Your task to perform on an android device: Search for sony triple a on target.com, select the first entry, and add it to the cart. Image 0: 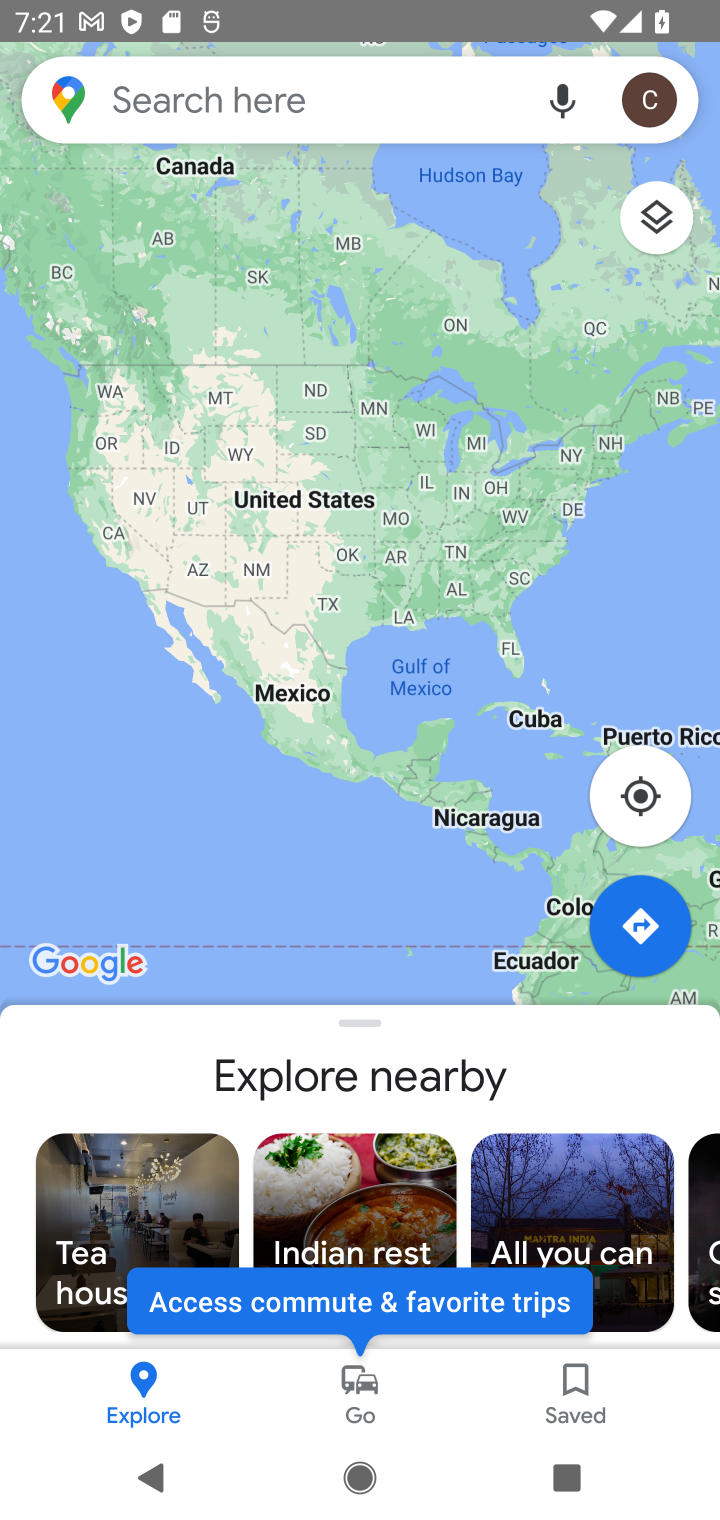
Step 0: press home button
Your task to perform on an android device: Search for sony triple a on target.com, select the first entry, and add it to the cart. Image 1: 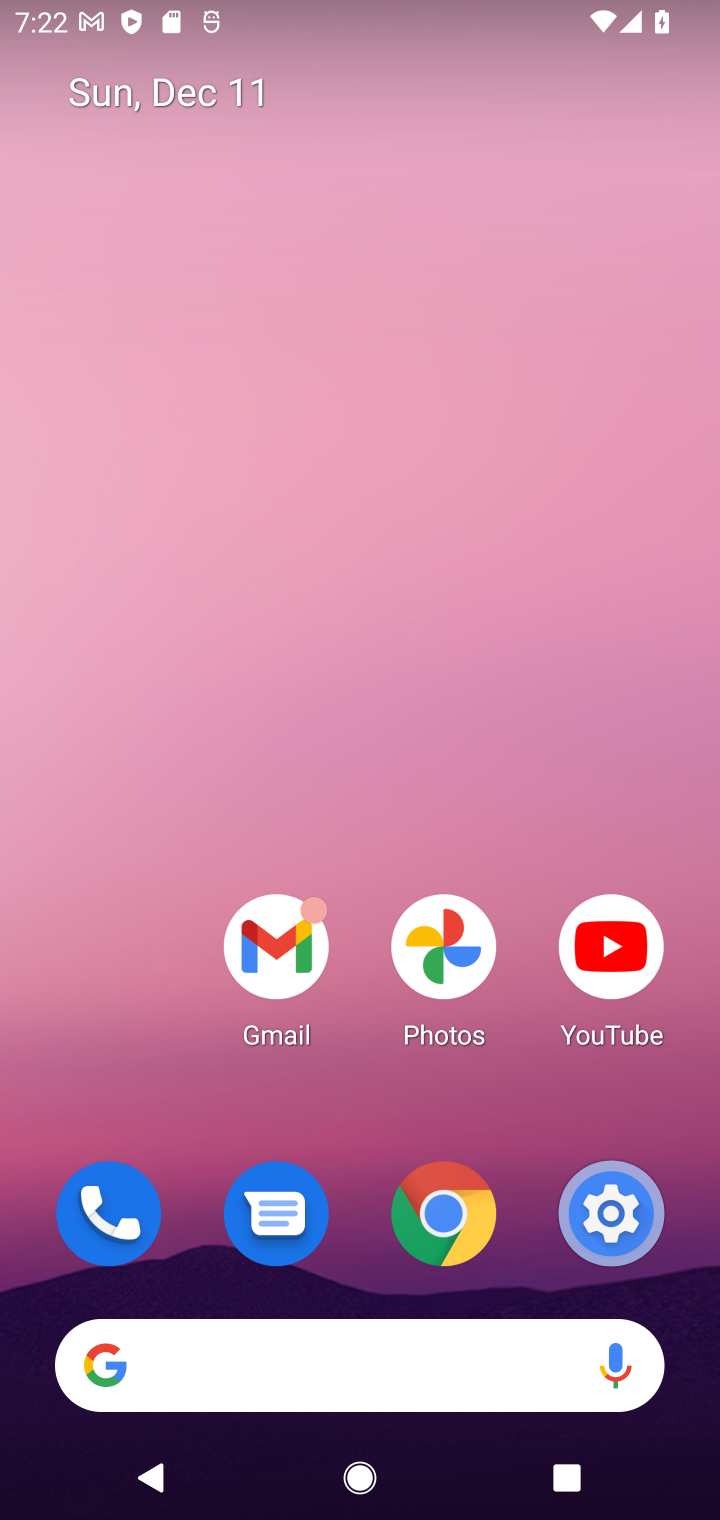
Step 1: click (357, 1386)
Your task to perform on an android device: Search for sony triple a on target.com, select the first entry, and add it to the cart. Image 2: 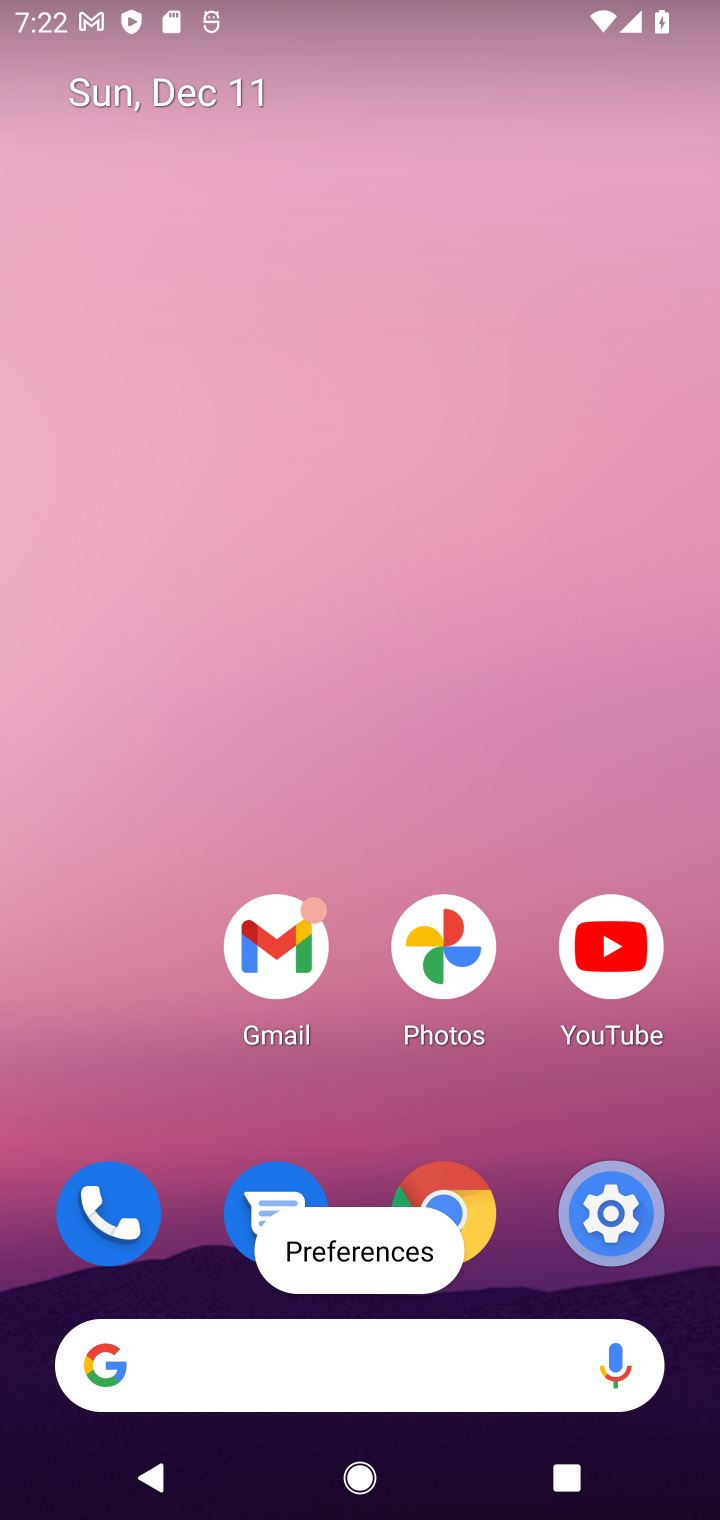
Step 2: type "target"
Your task to perform on an android device: Search for sony triple a on target.com, select the first entry, and add it to the cart. Image 3: 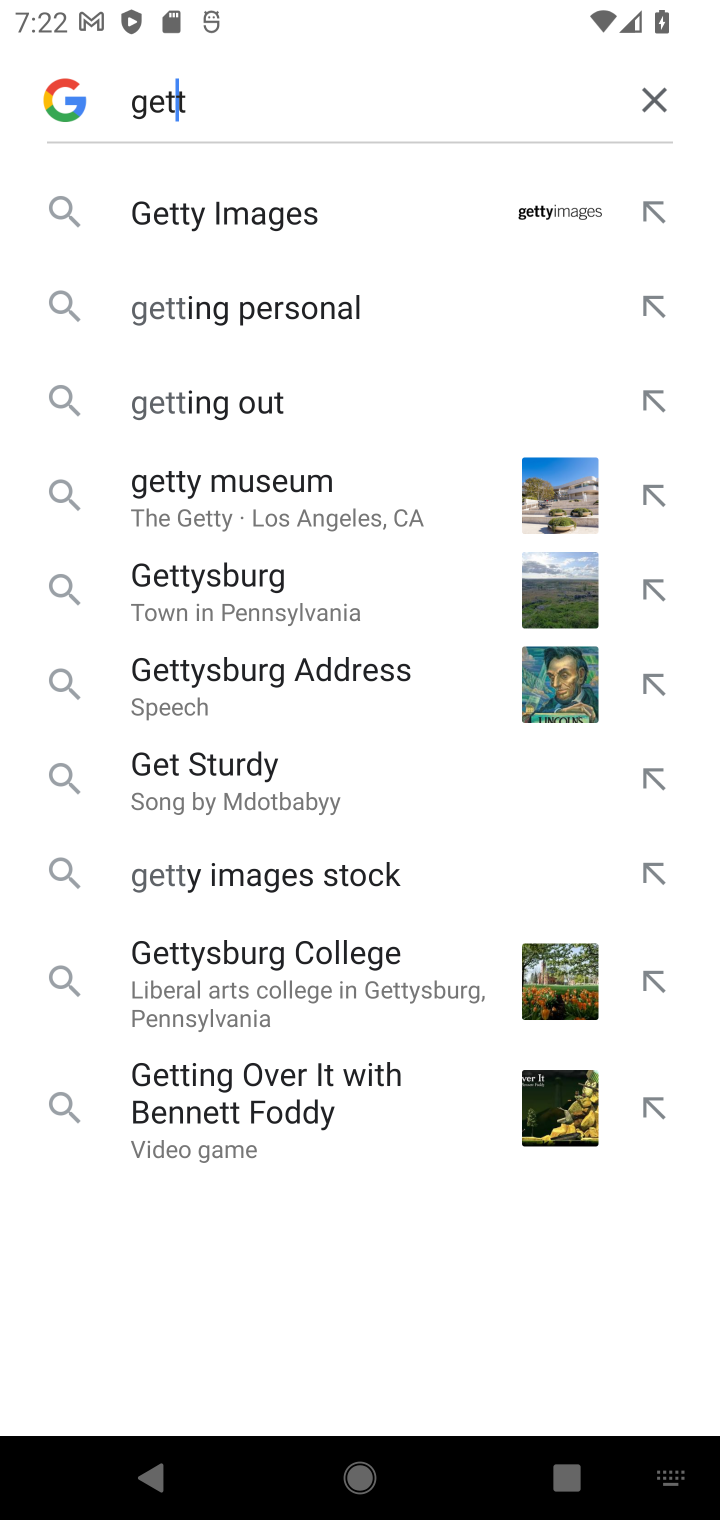
Step 3: click (629, 121)
Your task to perform on an android device: Search for sony triple a on target.com, select the first entry, and add it to the cart. Image 4: 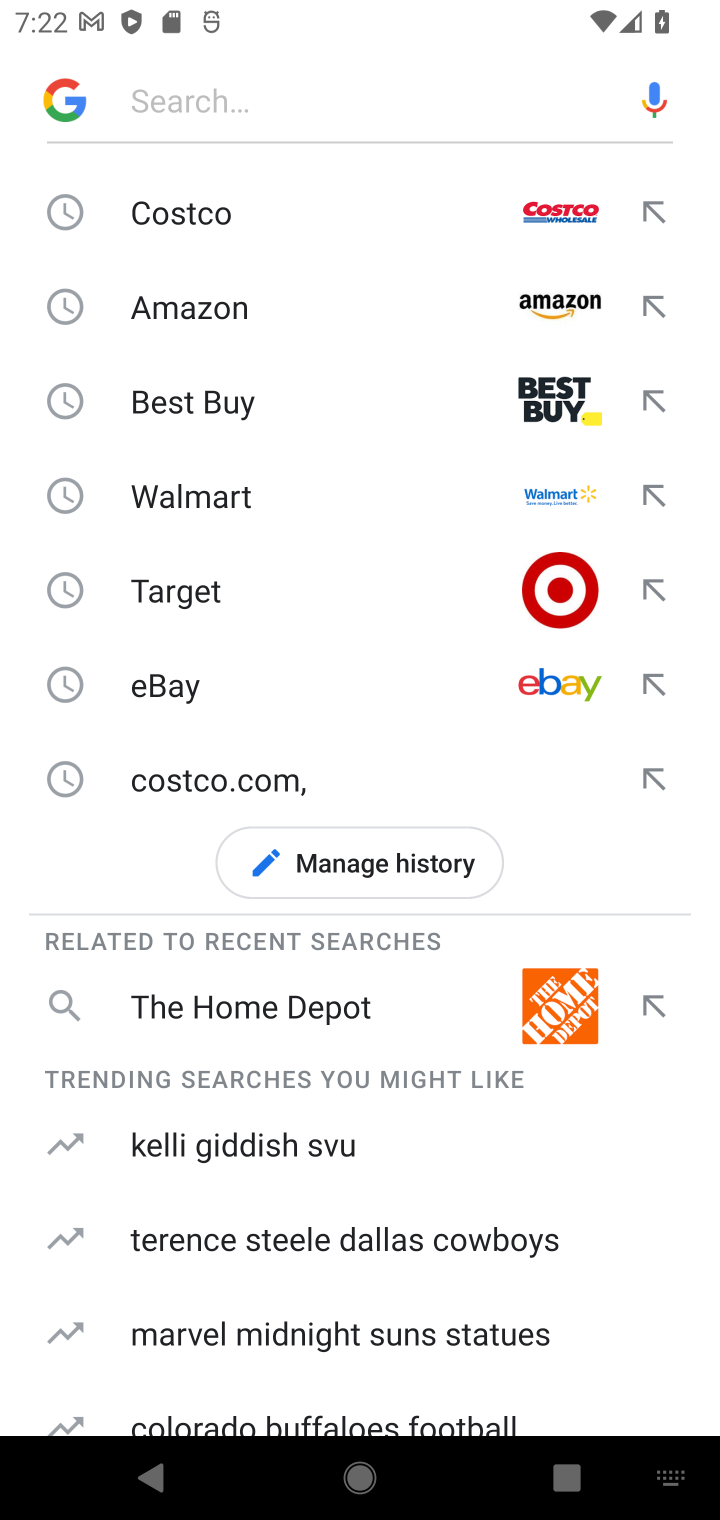
Step 4: type "target"
Your task to perform on an android device: Search for sony triple a on target.com, select the first entry, and add it to the cart. Image 5: 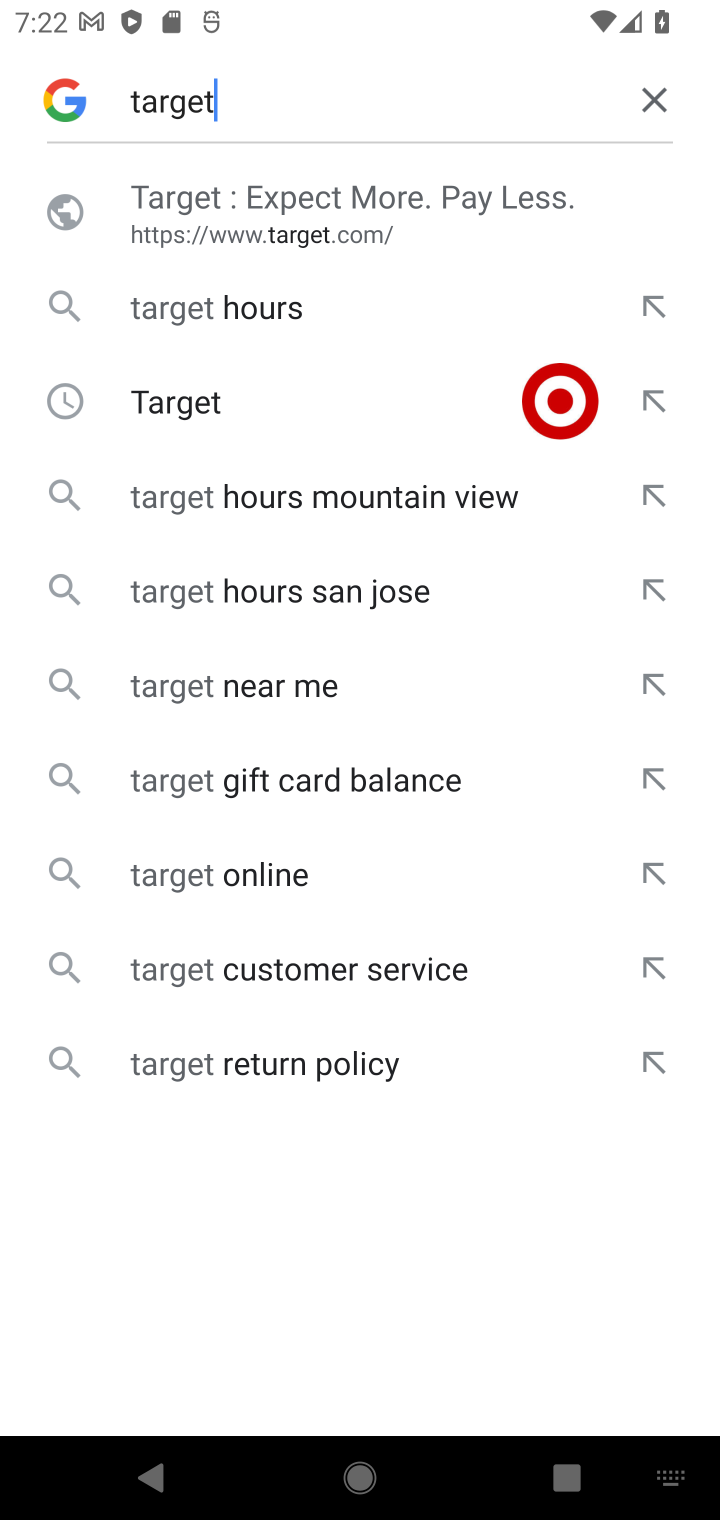
Step 5: click (206, 218)
Your task to perform on an android device: Search for sony triple a on target.com, select the first entry, and add it to the cart. Image 6: 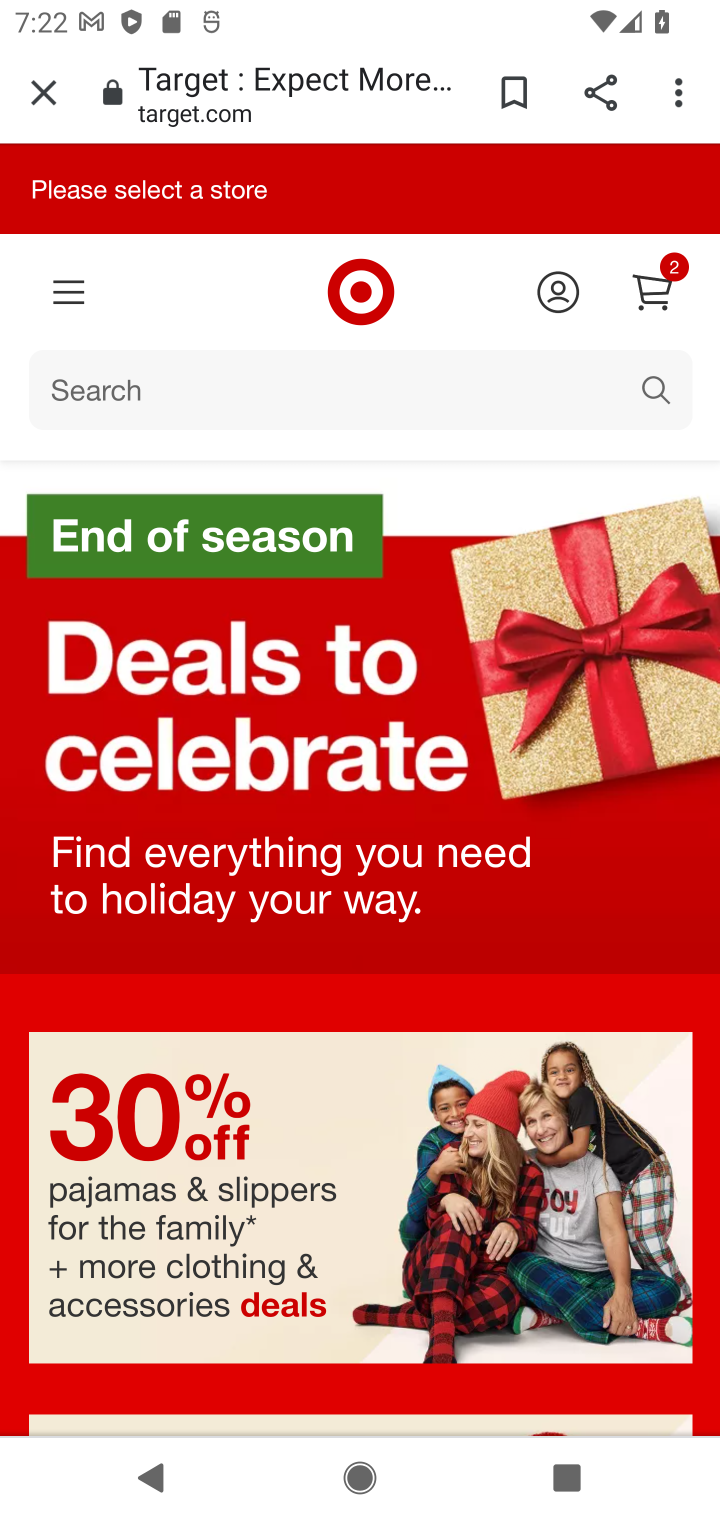
Step 6: click (318, 360)
Your task to perform on an android device: Search for sony triple a on target.com, select the first entry, and add it to the cart. Image 7: 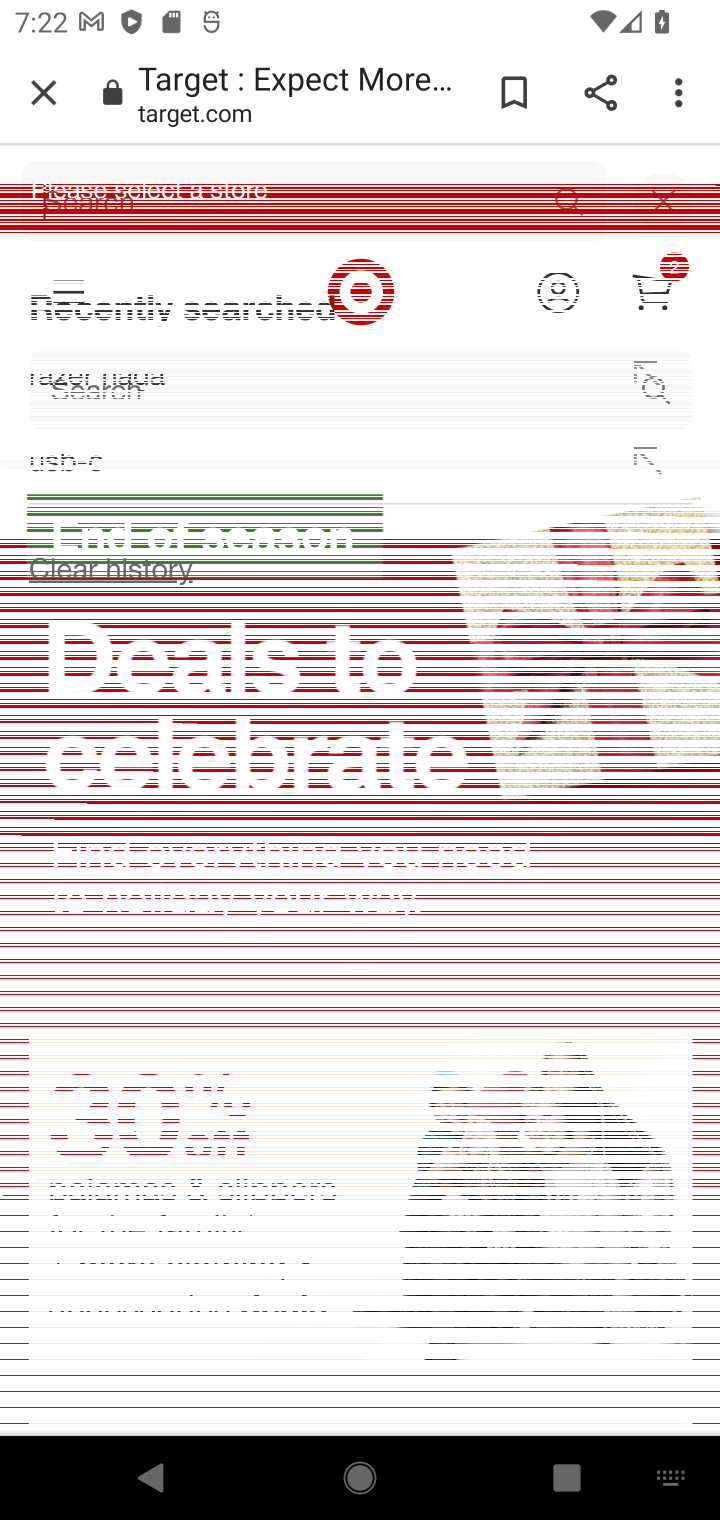
Step 7: type "sony tripl a"
Your task to perform on an android device: Search for sony triple a on target.com, select the first entry, and add it to the cart. Image 8: 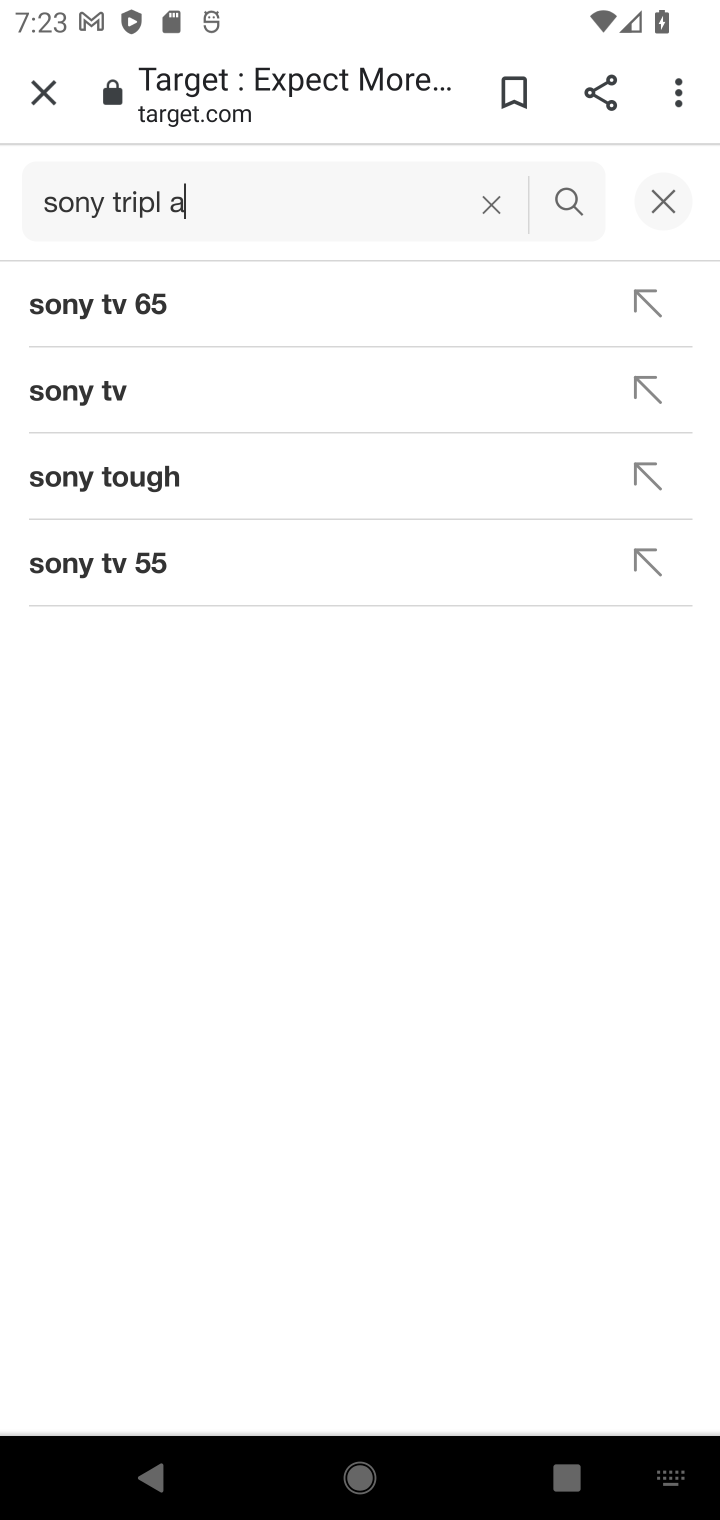
Step 8: press home button
Your task to perform on an android device: Search for sony triple a on target.com, select the first entry, and add it to the cart. Image 9: 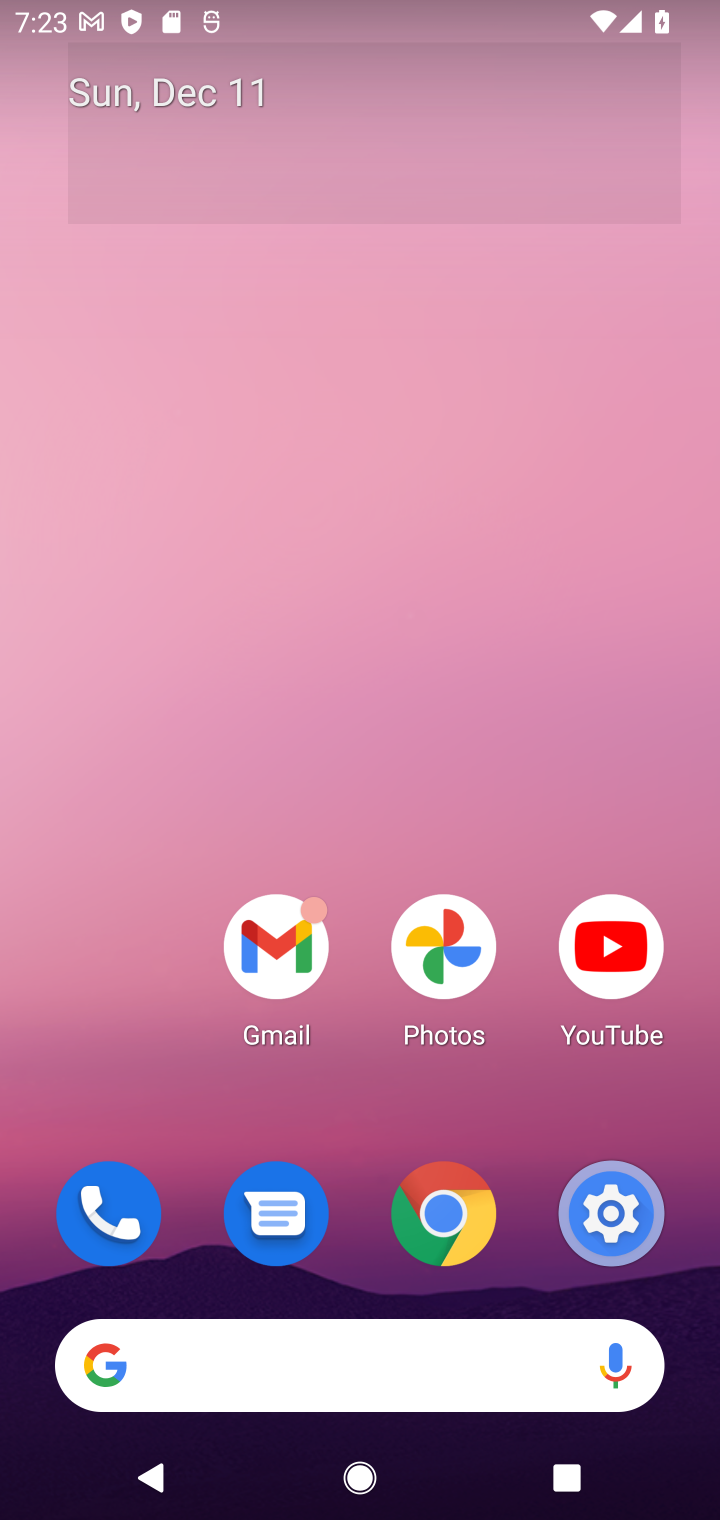
Step 9: click (324, 1348)
Your task to perform on an android device: Search for sony triple a on target.com, select the first entry, and add it to the cart. Image 10: 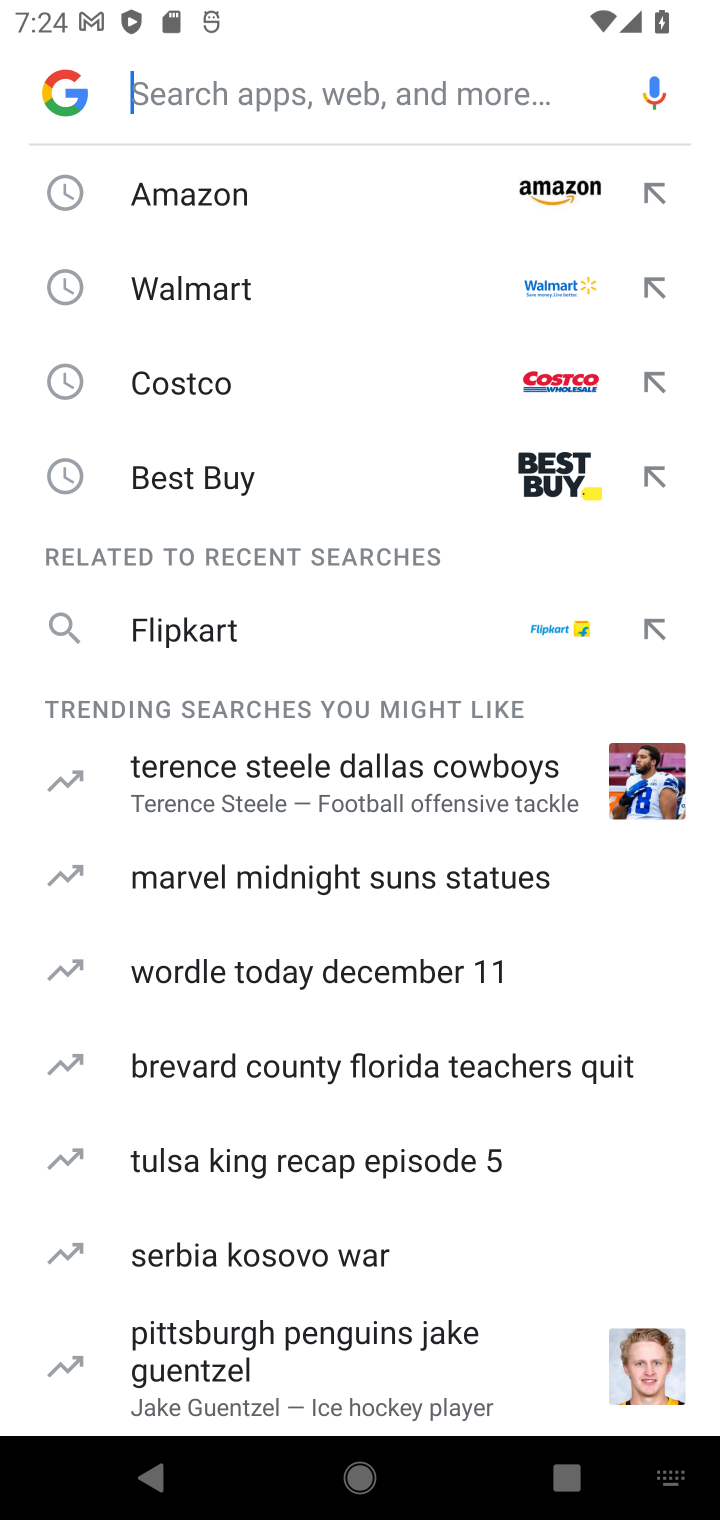
Step 10: type "taeget"
Your task to perform on an android device: Search for sony triple a on target.com, select the first entry, and add it to the cart. Image 11: 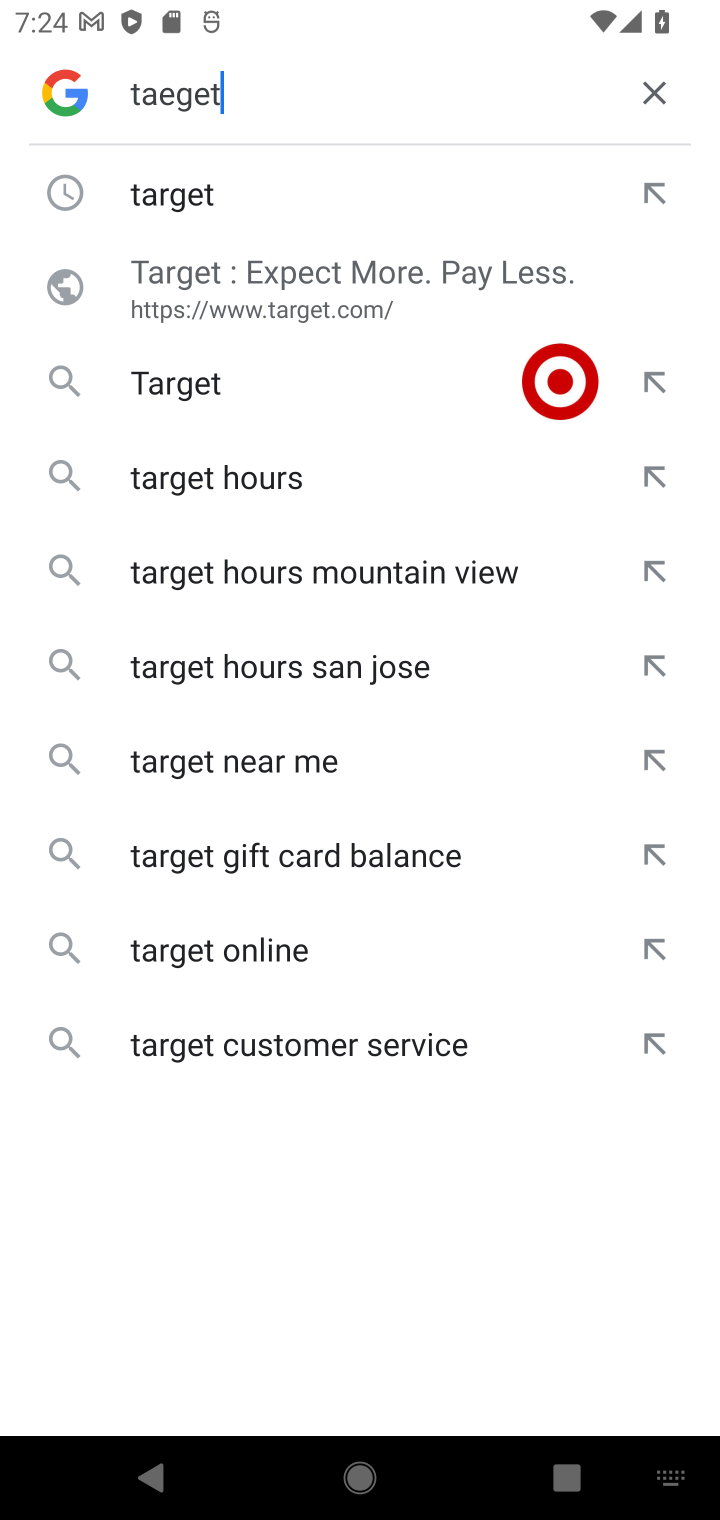
Step 11: click (175, 185)
Your task to perform on an android device: Search for sony triple a on target.com, select the first entry, and add it to the cart. Image 12: 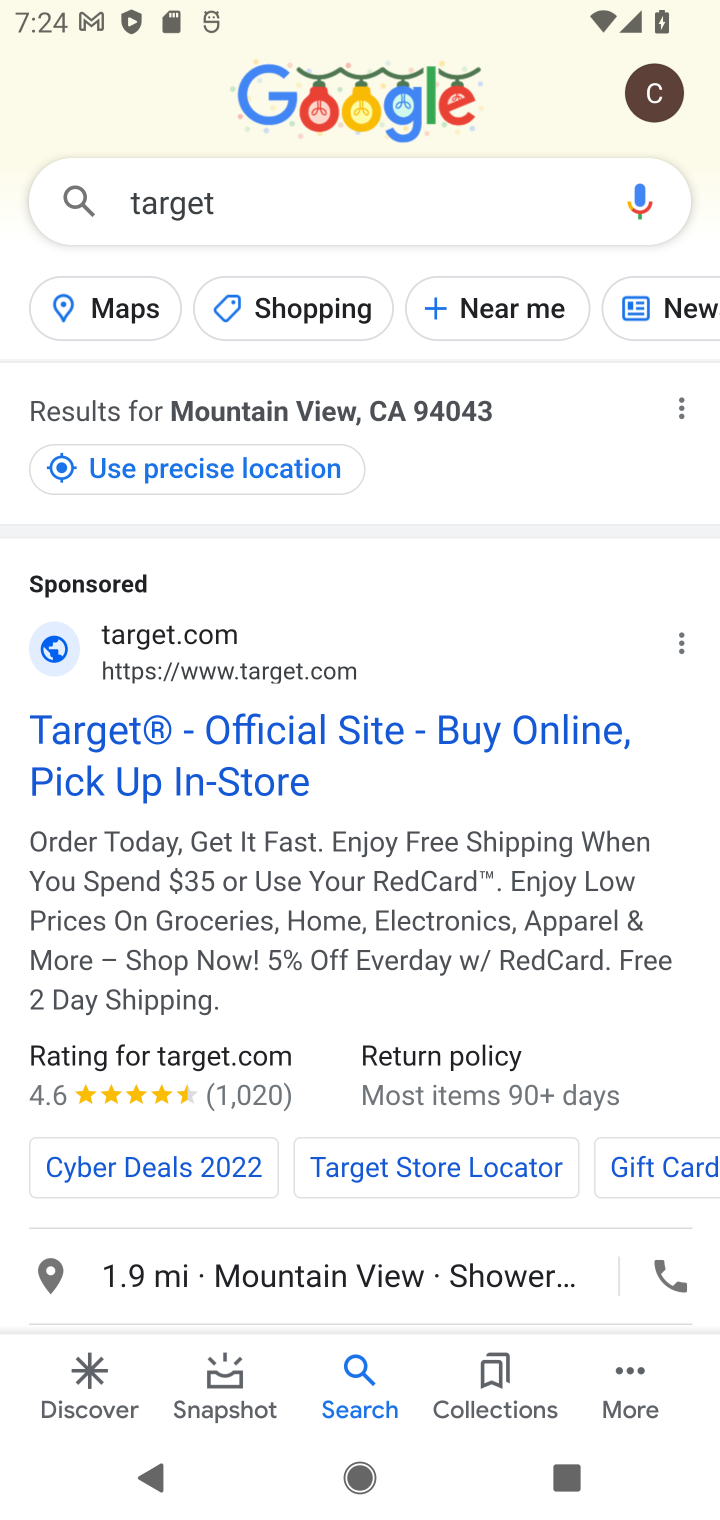
Step 12: click (56, 742)
Your task to perform on an android device: Search for sony triple a on target.com, select the first entry, and add it to the cart. Image 13: 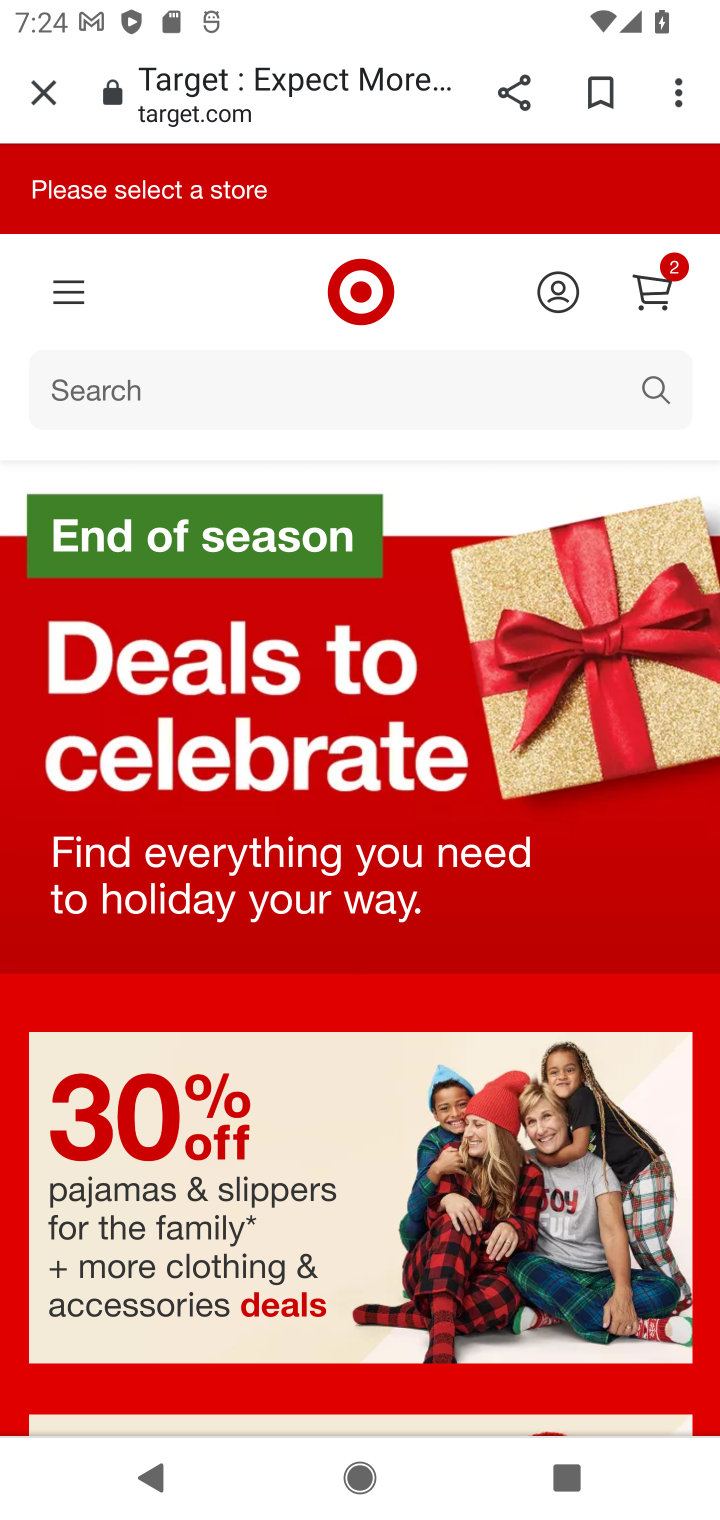
Step 13: click (237, 408)
Your task to perform on an android device: Search for sony triple a on target.com, select the first entry, and add it to the cart. Image 14: 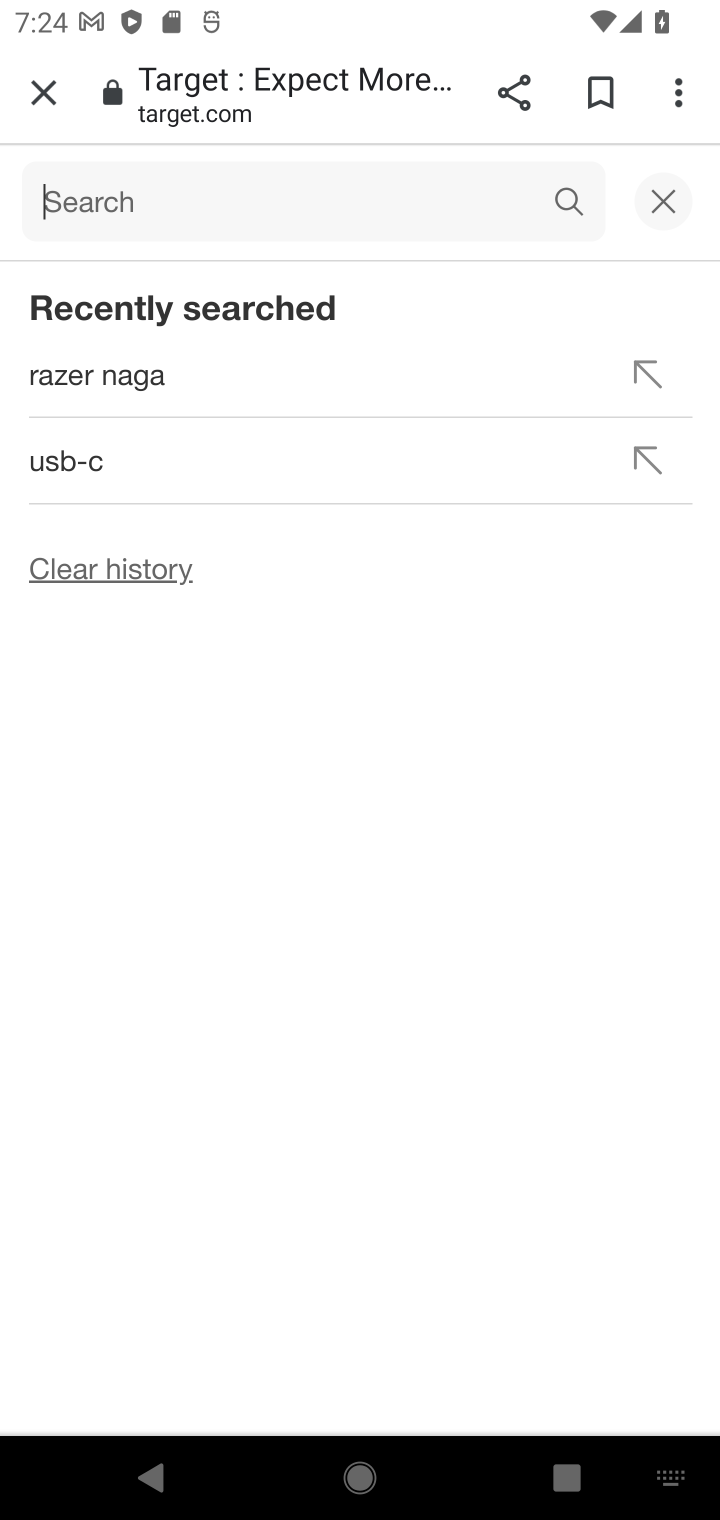
Step 14: type "sony triple a"
Your task to perform on an android device: Search for sony triple a on target.com, select the first entry, and add it to the cart. Image 15: 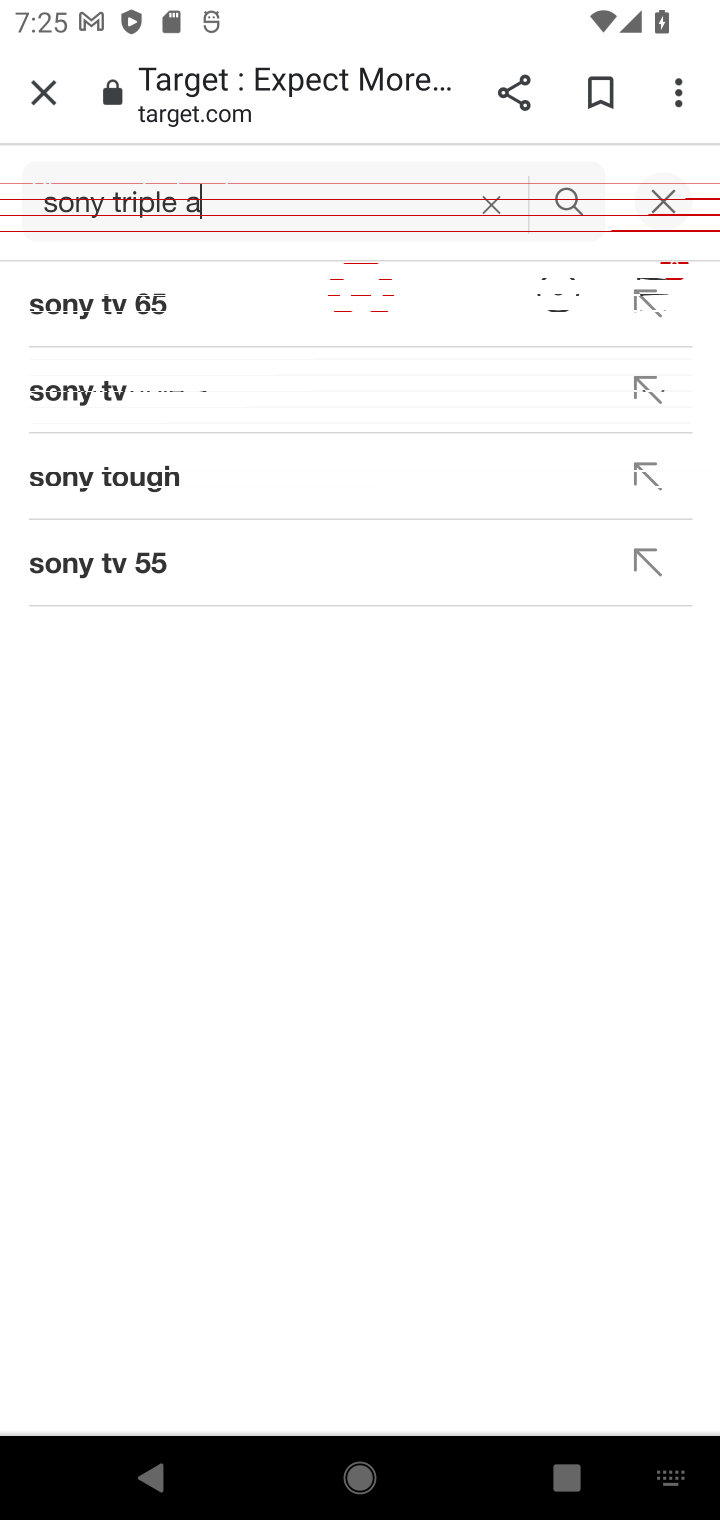
Step 15: click (559, 209)
Your task to perform on an android device: Search for sony triple a on target.com, select the first entry, and add it to the cart. Image 16: 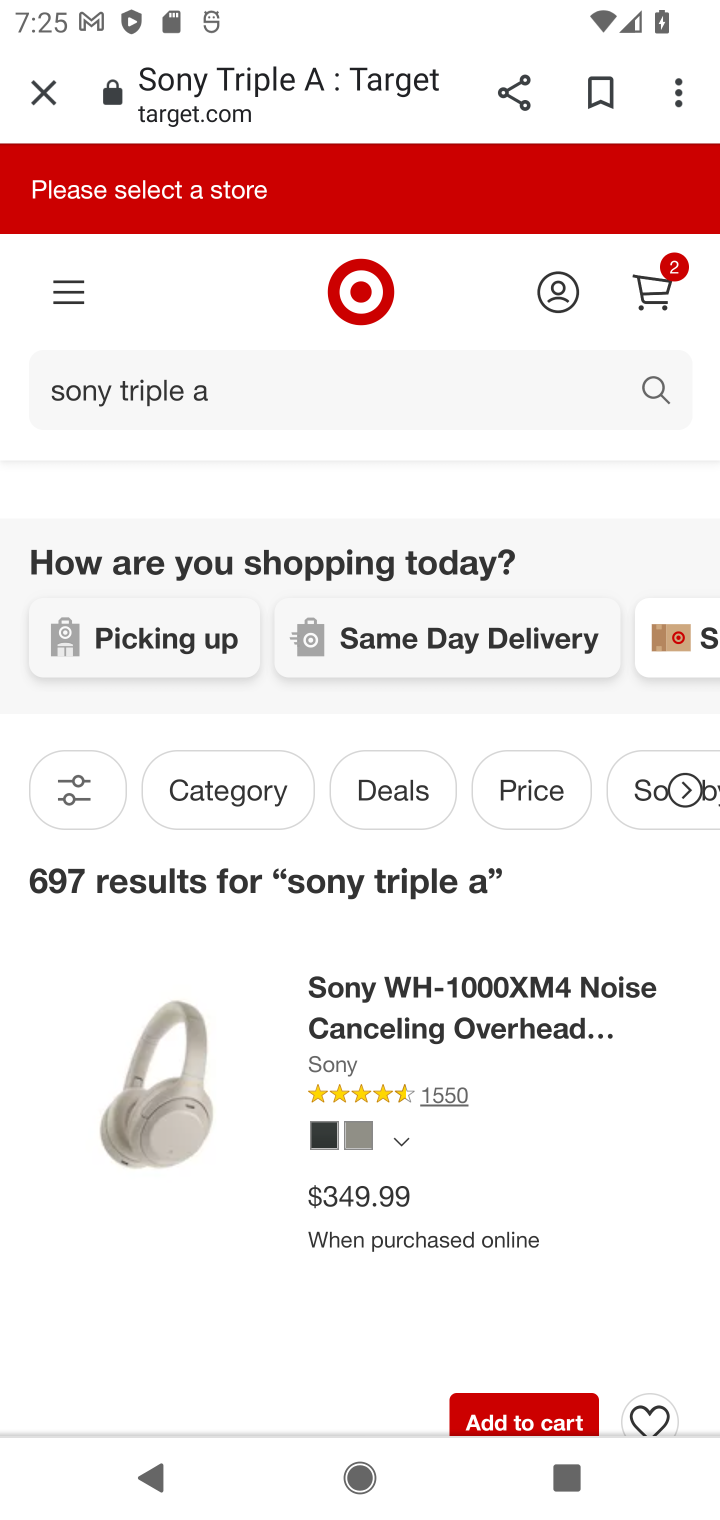
Step 16: click (541, 1408)
Your task to perform on an android device: Search for sony triple a on target.com, select the first entry, and add it to the cart. Image 17: 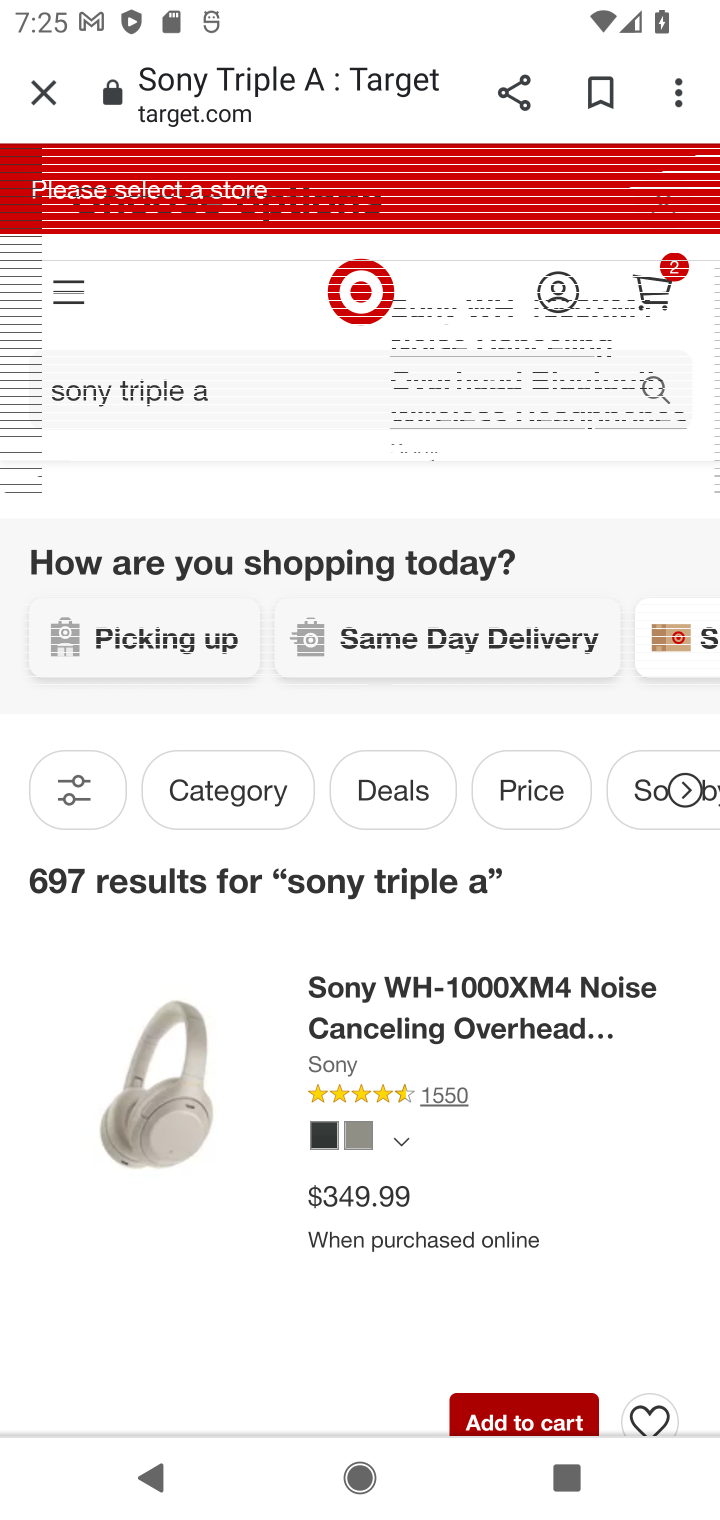
Step 17: task complete